Your task to perform on an android device: turn on location history Image 0: 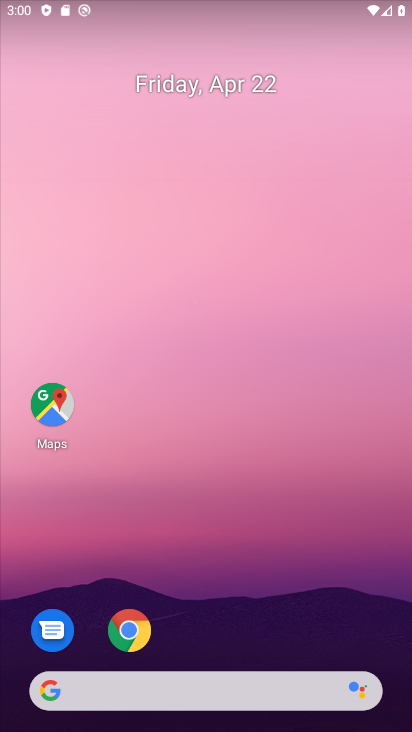
Step 0: drag from (214, 563) to (279, 1)
Your task to perform on an android device: turn on location history Image 1: 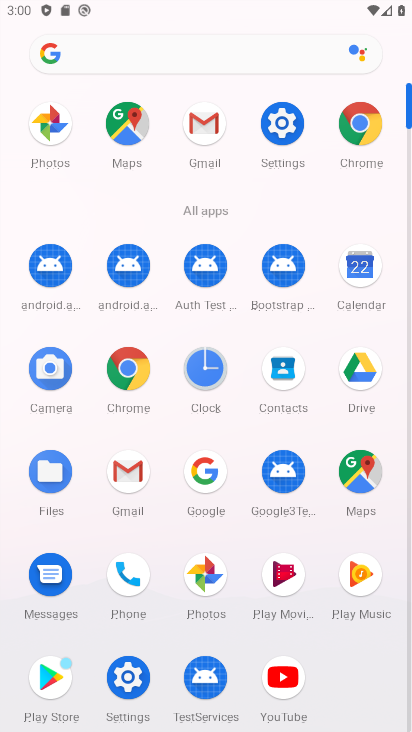
Step 1: click (119, 677)
Your task to perform on an android device: turn on location history Image 2: 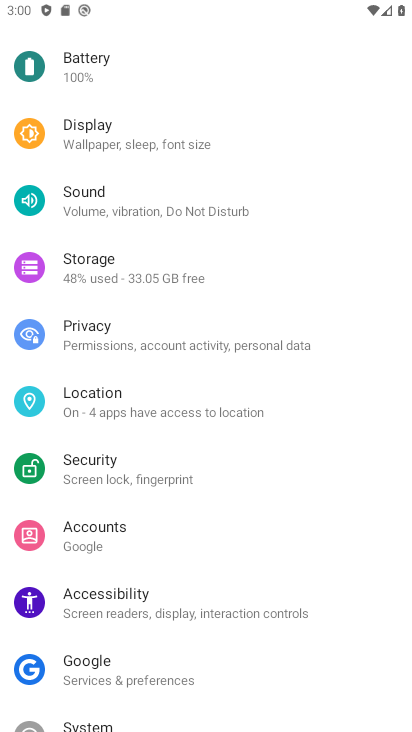
Step 2: click (157, 417)
Your task to perform on an android device: turn on location history Image 3: 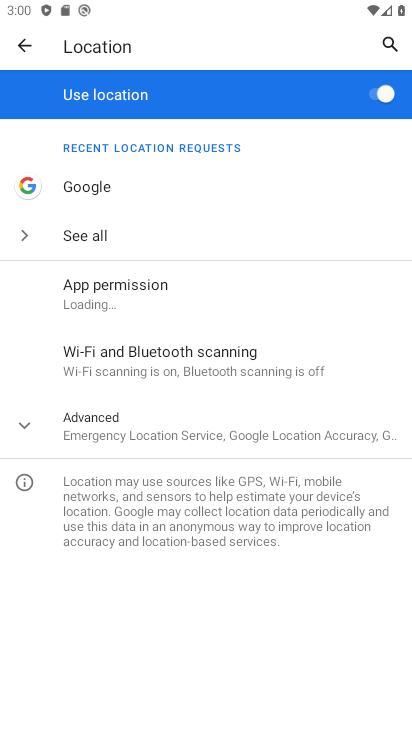
Step 3: click (141, 435)
Your task to perform on an android device: turn on location history Image 4: 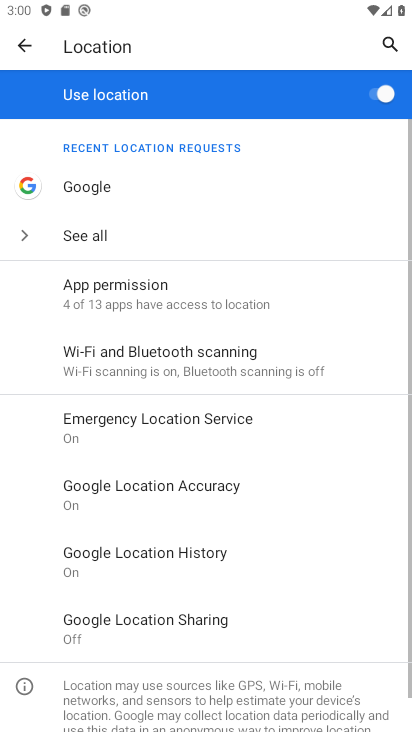
Step 4: click (118, 558)
Your task to perform on an android device: turn on location history Image 5: 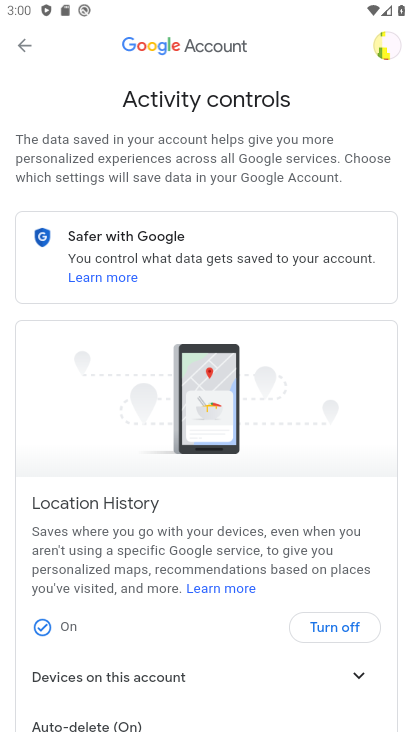
Step 5: task complete